Your task to perform on an android device: Open Google Chrome Image 0: 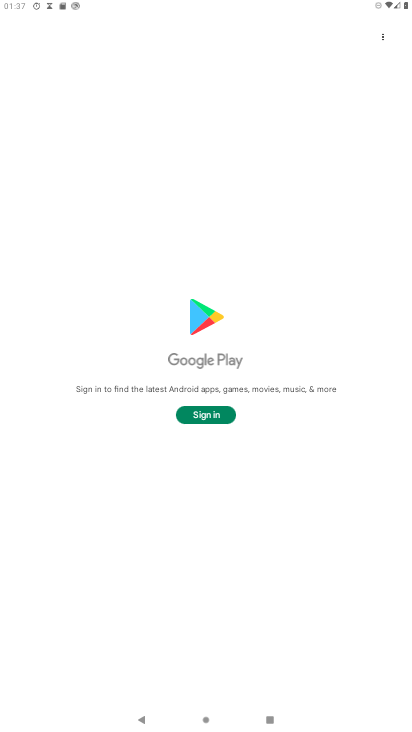
Step 0: press home button
Your task to perform on an android device: Open Google Chrome Image 1: 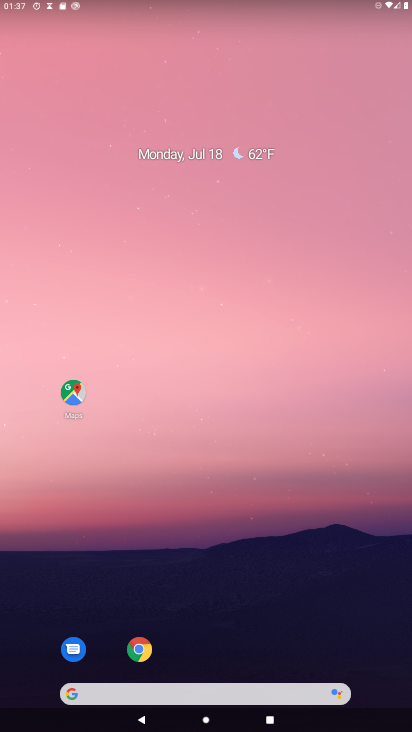
Step 1: click (134, 637)
Your task to perform on an android device: Open Google Chrome Image 2: 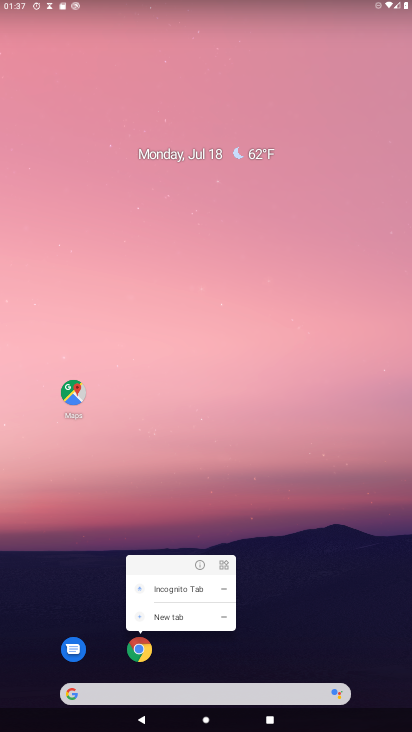
Step 2: click (132, 653)
Your task to perform on an android device: Open Google Chrome Image 3: 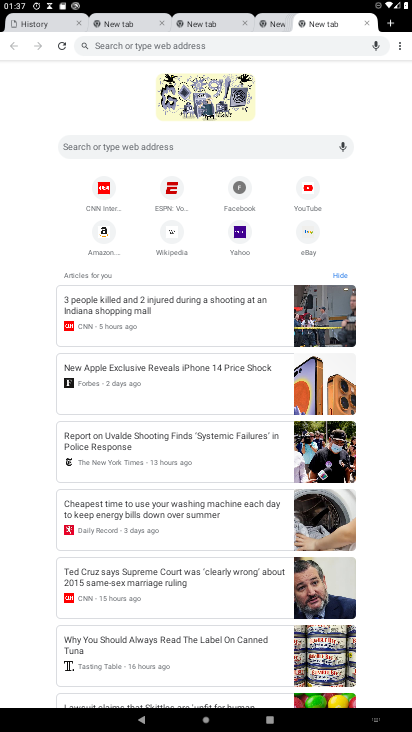
Step 3: task complete